Your task to perform on an android device: Toggle the flashlight Image 0: 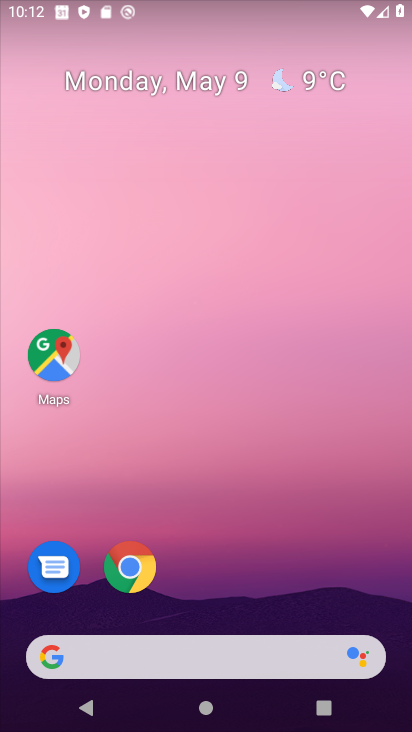
Step 0: drag from (200, 611) to (296, 4)
Your task to perform on an android device: Toggle the flashlight Image 1: 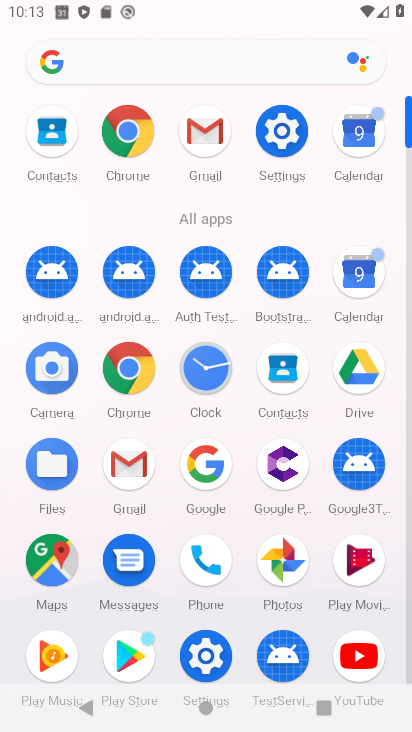
Step 1: click (283, 127)
Your task to perform on an android device: Toggle the flashlight Image 2: 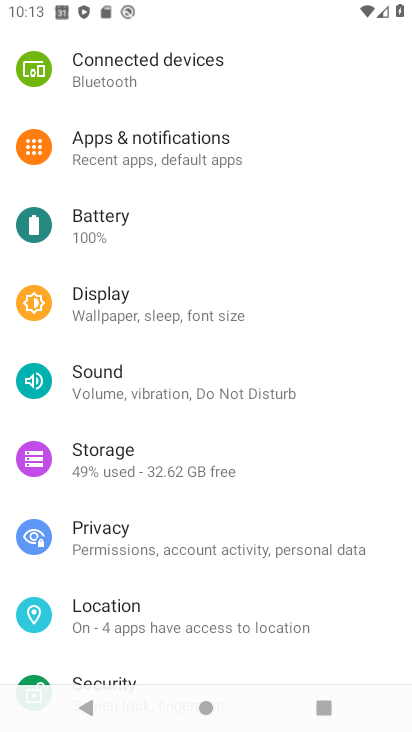
Step 2: drag from (150, 105) to (176, 688)
Your task to perform on an android device: Toggle the flashlight Image 3: 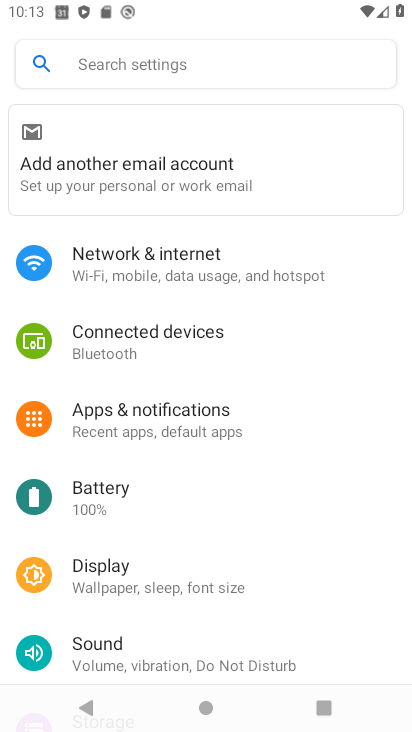
Step 3: click (140, 59)
Your task to perform on an android device: Toggle the flashlight Image 4: 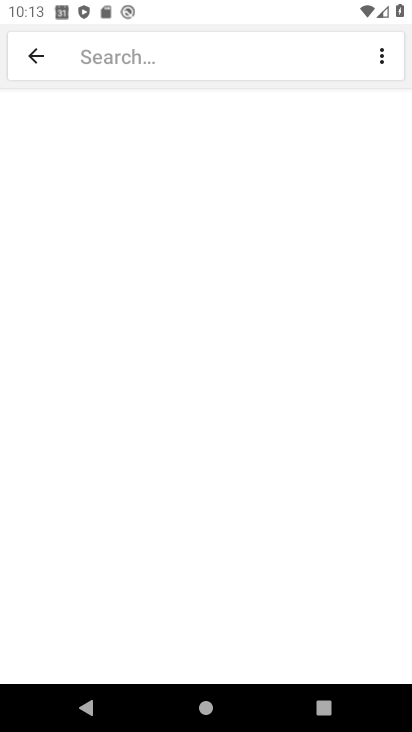
Step 4: type "flashlight"
Your task to perform on an android device: Toggle the flashlight Image 5: 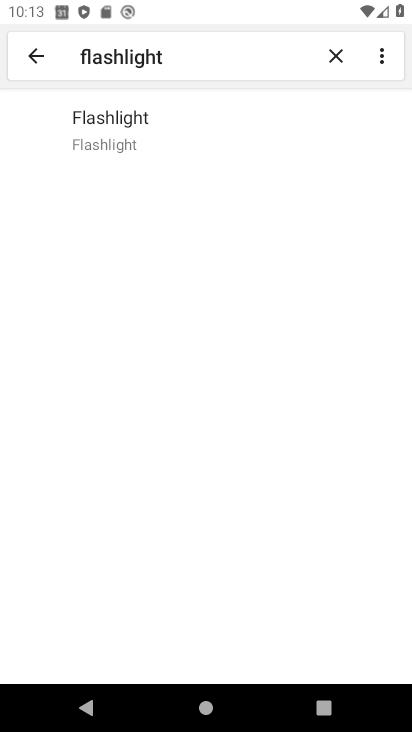
Step 5: click (154, 133)
Your task to perform on an android device: Toggle the flashlight Image 6: 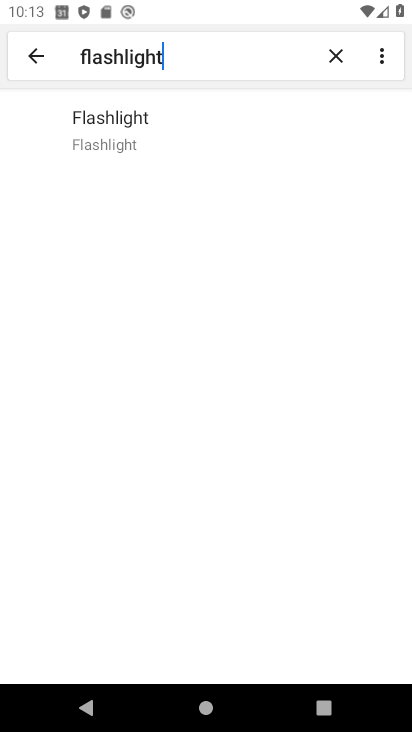
Step 6: click (153, 131)
Your task to perform on an android device: Toggle the flashlight Image 7: 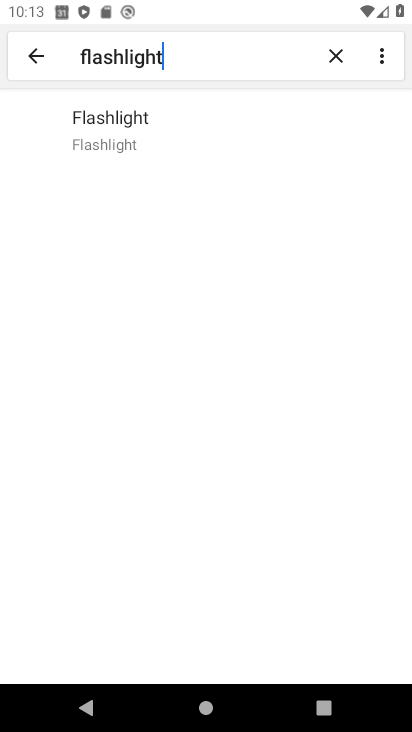
Step 7: task complete